Your task to perform on an android device: turn off location history Image 0: 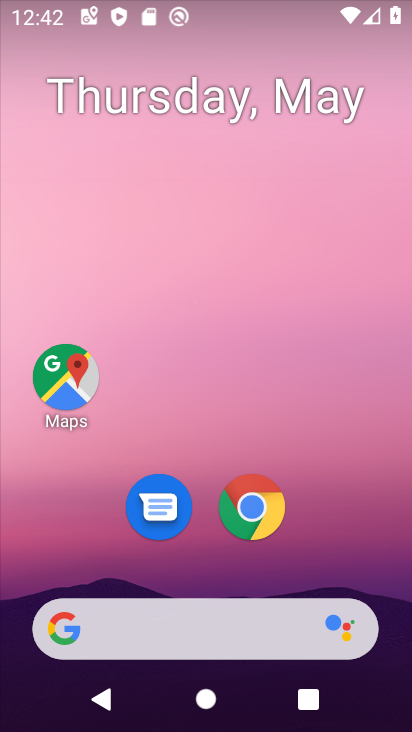
Step 0: drag from (227, 574) to (149, 120)
Your task to perform on an android device: turn off location history Image 1: 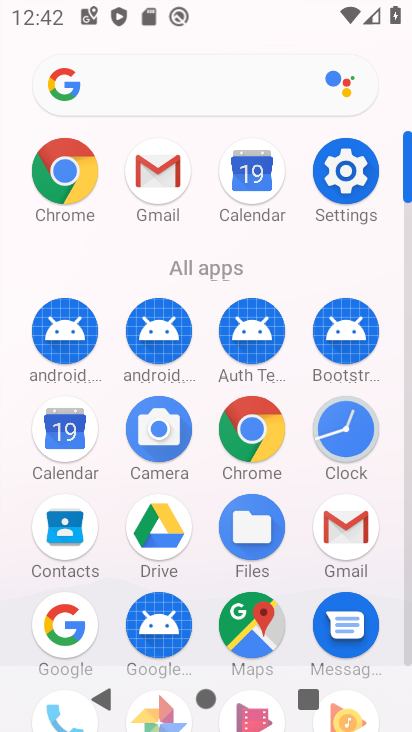
Step 1: click (345, 175)
Your task to perform on an android device: turn off location history Image 2: 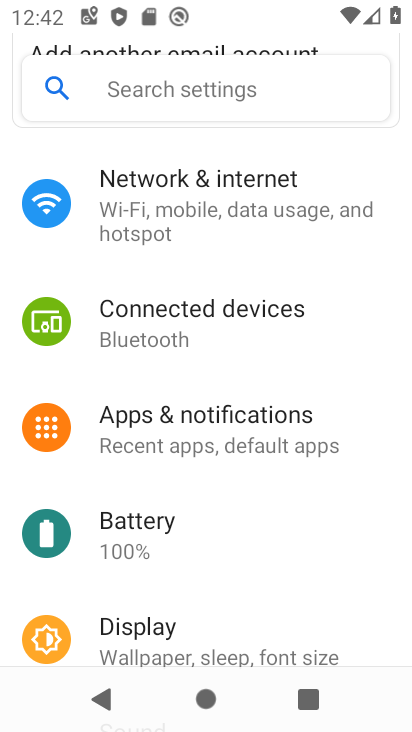
Step 2: drag from (223, 546) to (205, 159)
Your task to perform on an android device: turn off location history Image 3: 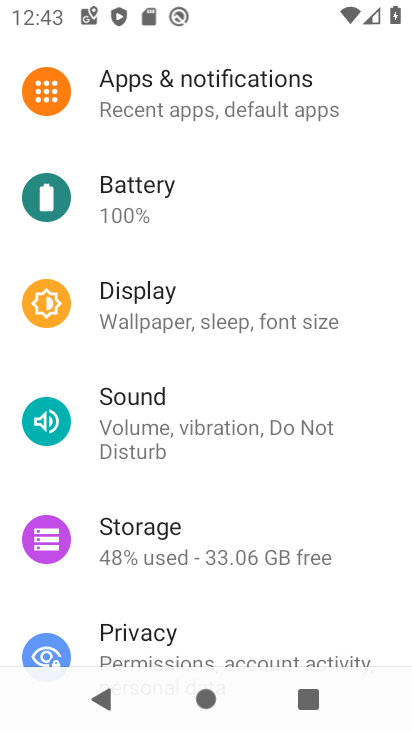
Step 3: drag from (178, 581) to (220, 230)
Your task to perform on an android device: turn off location history Image 4: 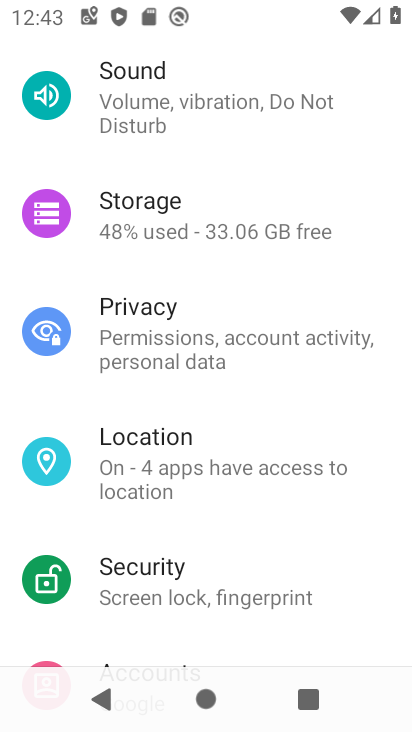
Step 4: click (147, 475)
Your task to perform on an android device: turn off location history Image 5: 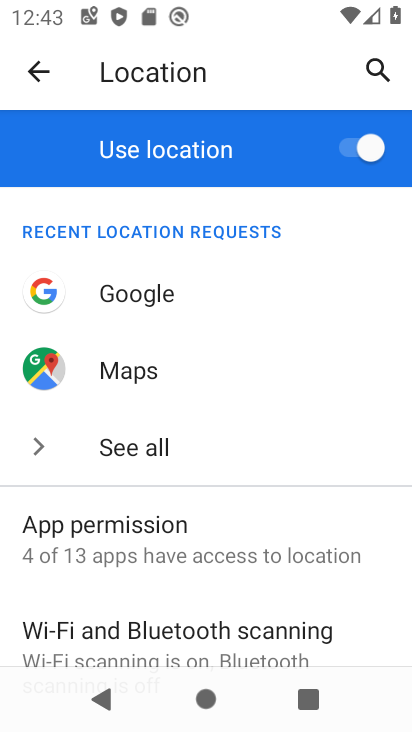
Step 5: task complete